Your task to perform on an android device: delete location history Image 0: 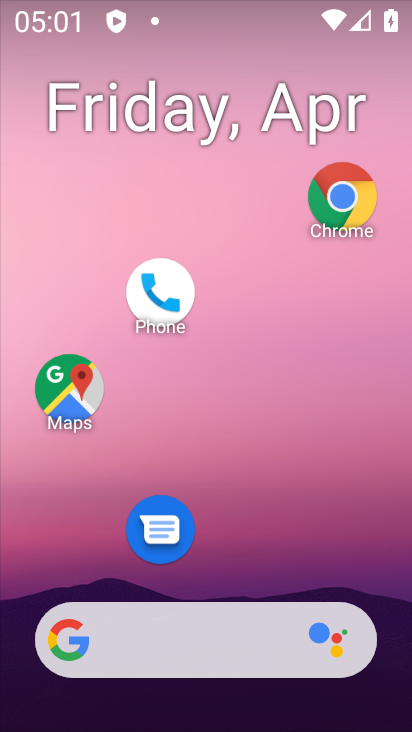
Step 0: drag from (238, 570) to (263, 63)
Your task to perform on an android device: delete location history Image 1: 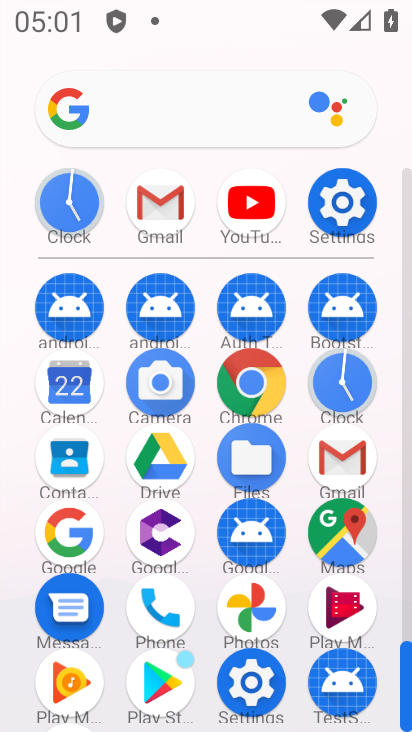
Step 1: click (339, 528)
Your task to perform on an android device: delete location history Image 2: 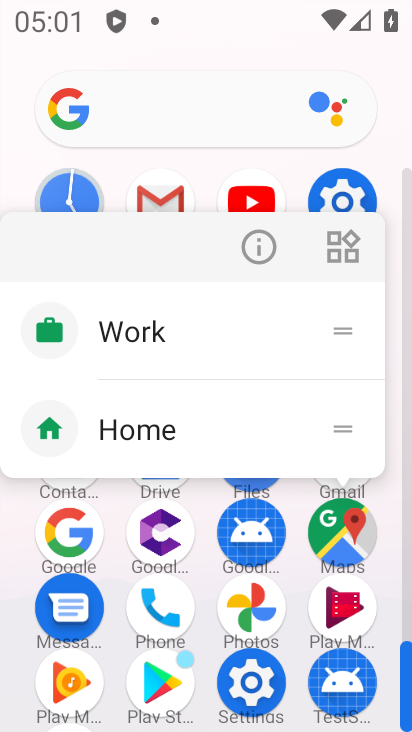
Step 2: click (335, 530)
Your task to perform on an android device: delete location history Image 3: 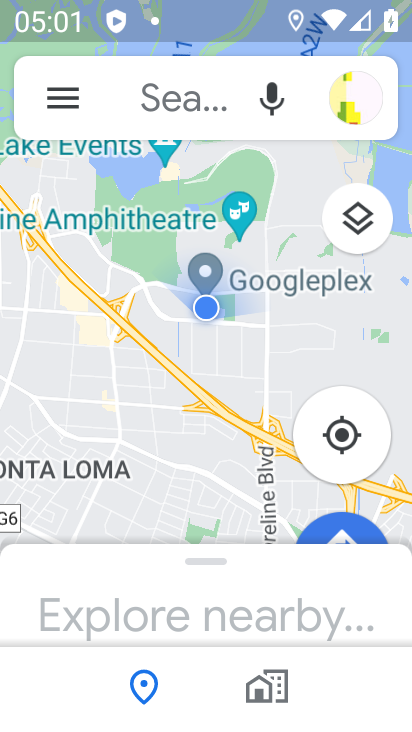
Step 3: click (51, 94)
Your task to perform on an android device: delete location history Image 4: 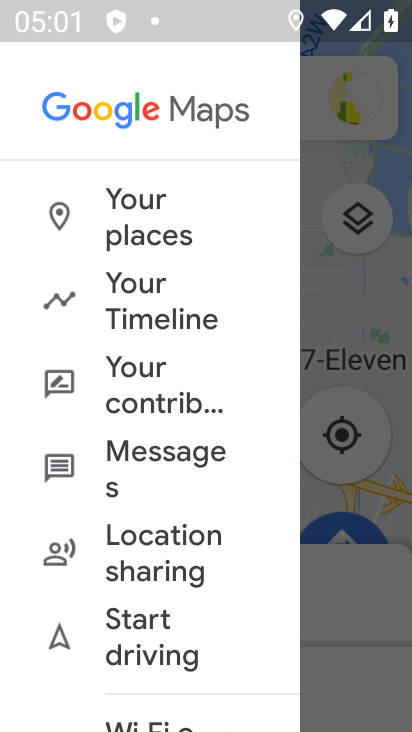
Step 4: drag from (171, 629) to (210, 106)
Your task to perform on an android device: delete location history Image 5: 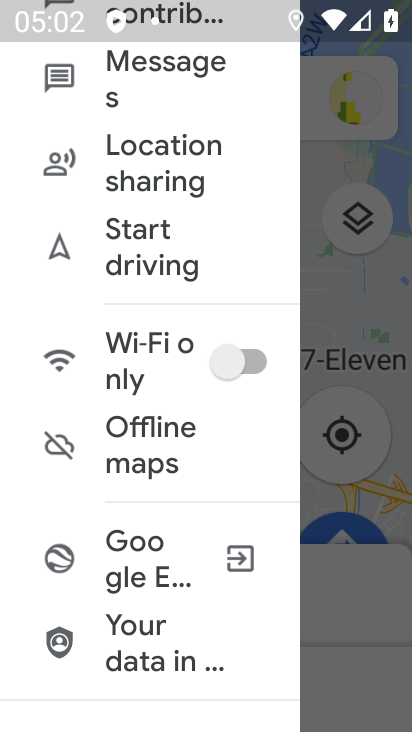
Step 5: drag from (162, 623) to (193, 133)
Your task to perform on an android device: delete location history Image 6: 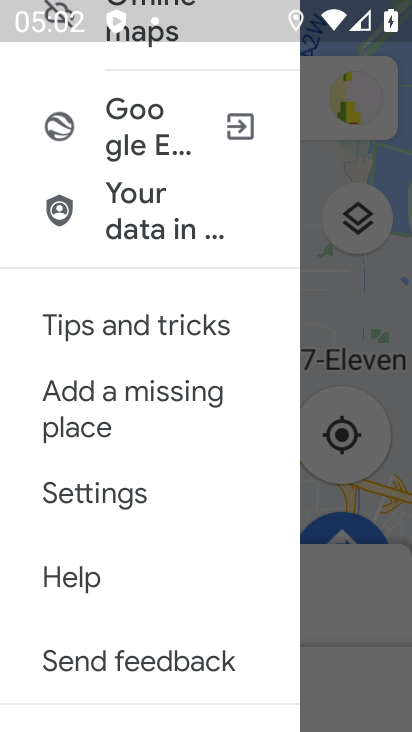
Step 6: drag from (168, 89) to (167, 694)
Your task to perform on an android device: delete location history Image 7: 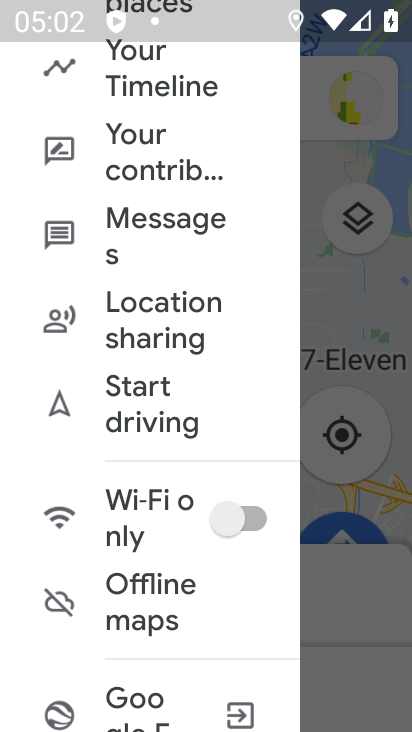
Step 7: drag from (136, 141) to (171, 698)
Your task to perform on an android device: delete location history Image 8: 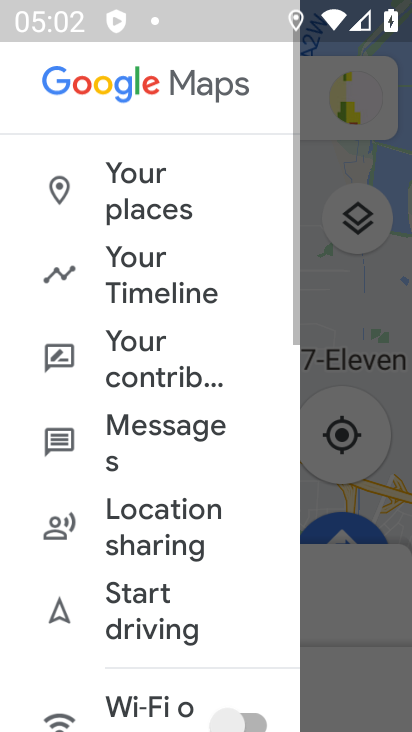
Step 8: click (176, 297)
Your task to perform on an android device: delete location history Image 9: 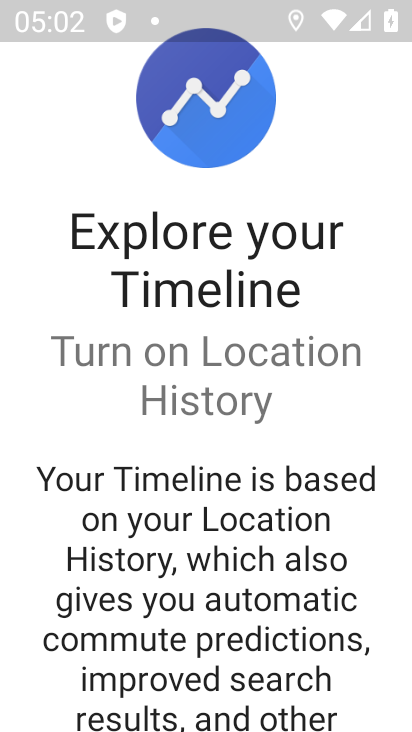
Step 9: drag from (226, 666) to (247, 235)
Your task to perform on an android device: delete location history Image 10: 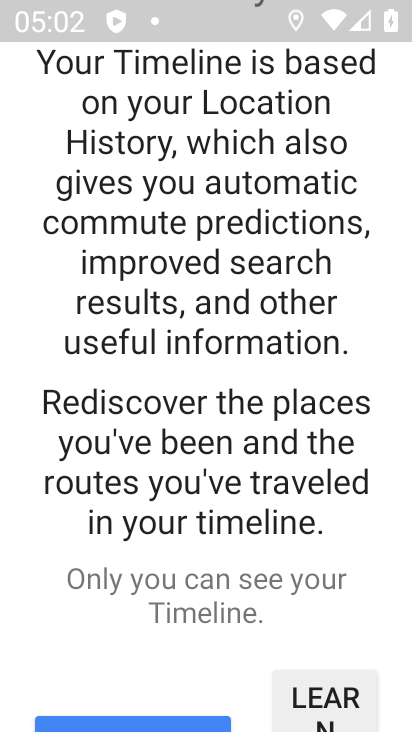
Step 10: drag from (226, 672) to (251, 212)
Your task to perform on an android device: delete location history Image 11: 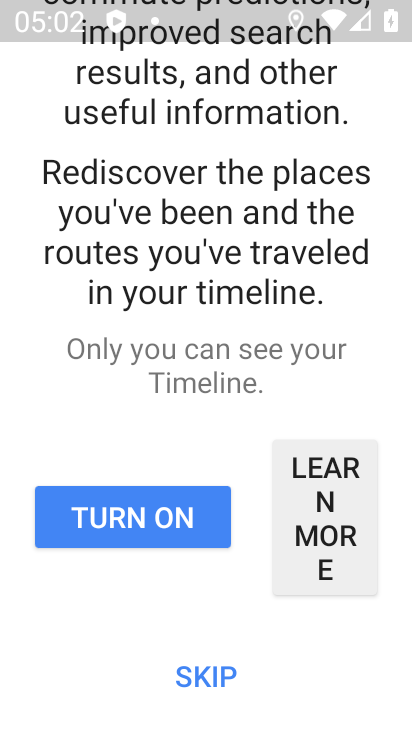
Step 11: click (152, 519)
Your task to perform on an android device: delete location history Image 12: 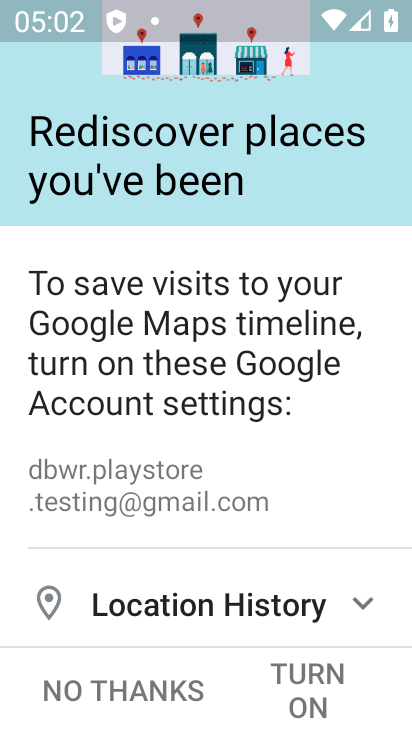
Step 12: click (161, 693)
Your task to perform on an android device: delete location history Image 13: 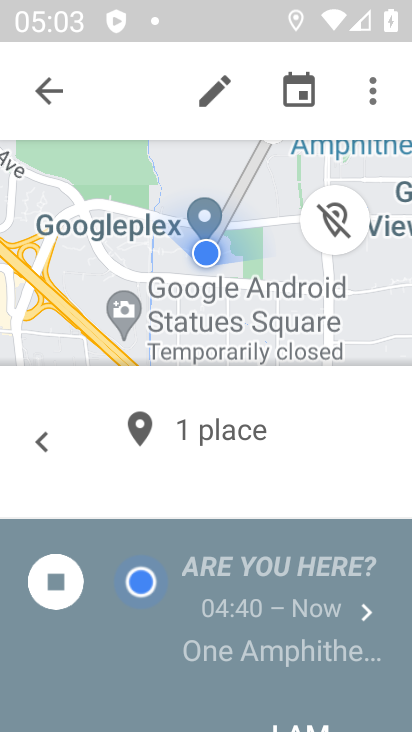
Step 13: click (375, 88)
Your task to perform on an android device: delete location history Image 14: 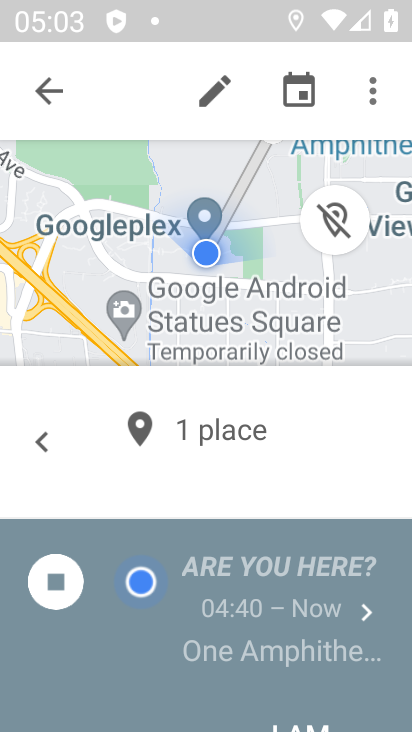
Step 14: click (370, 91)
Your task to perform on an android device: delete location history Image 15: 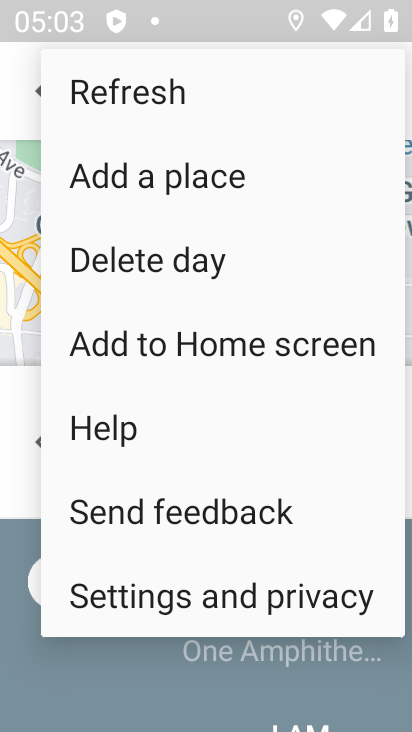
Step 15: click (256, 598)
Your task to perform on an android device: delete location history Image 16: 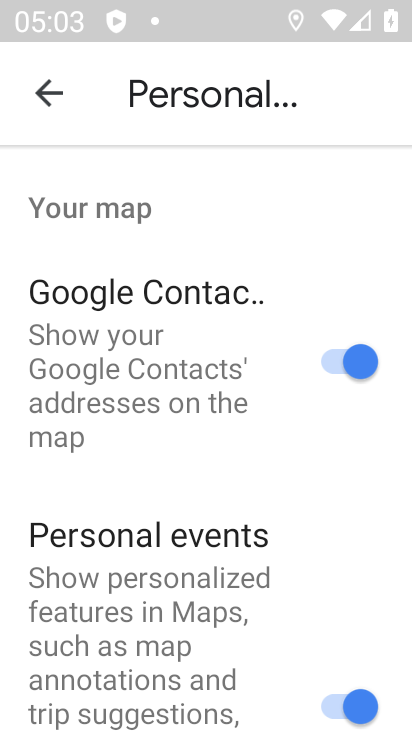
Step 16: drag from (142, 601) to (194, 229)
Your task to perform on an android device: delete location history Image 17: 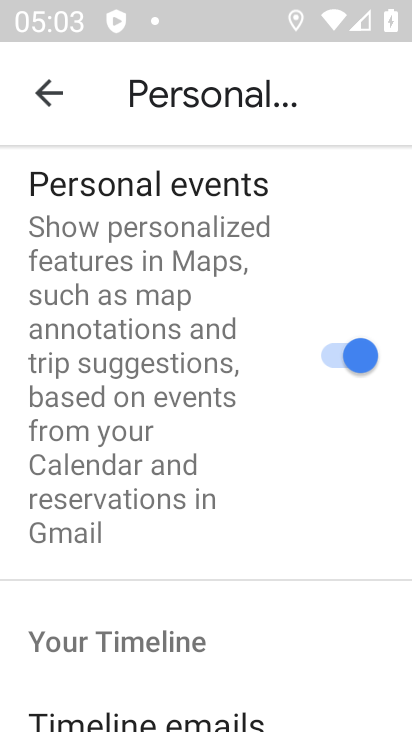
Step 17: drag from (182, 675) to (237, 161)
Your task to perform on an android device: delete location history Image 18: 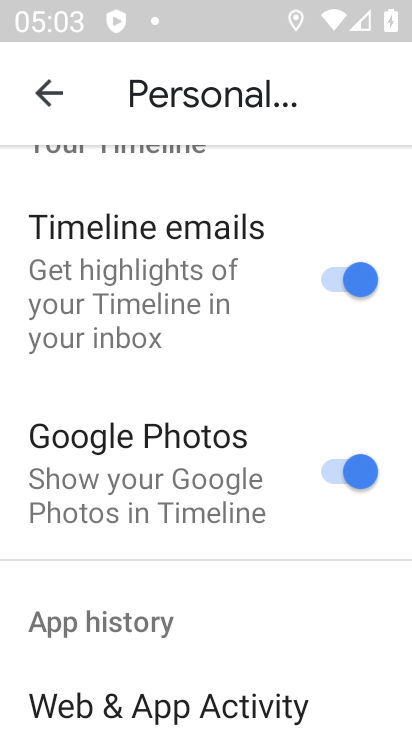
Step 18: drag from (202, 636) to (242, 122)
Your task to perform on an android device: delete location history Image 19: 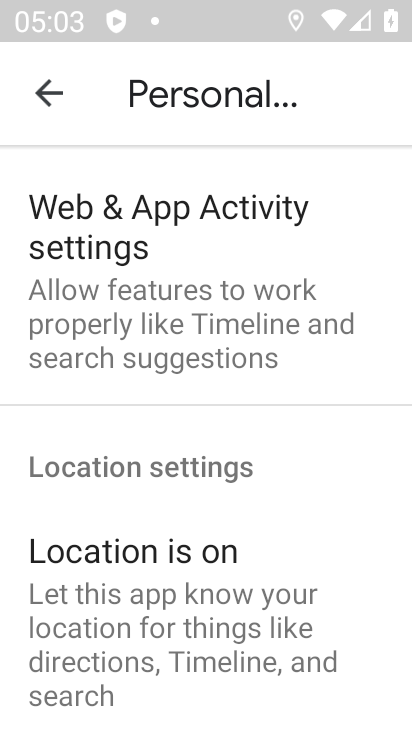
Step 19: drag from (180, 675) to (213, 160)
Your task to perform on an android device: delete location history Image 20: 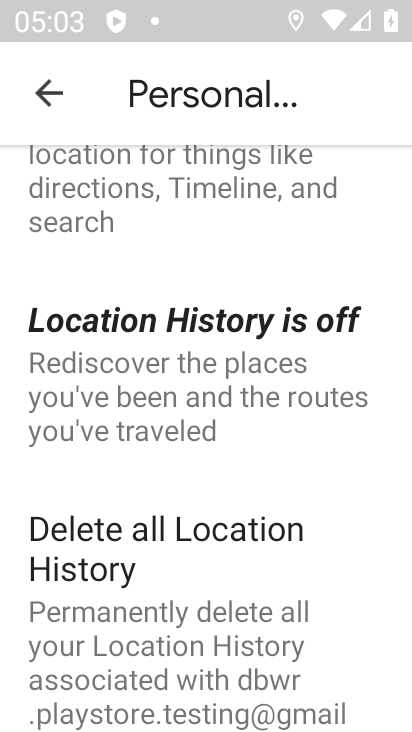
Step 20: click (187, 587)
Your task to perform on an android device: delete location history Image 21: 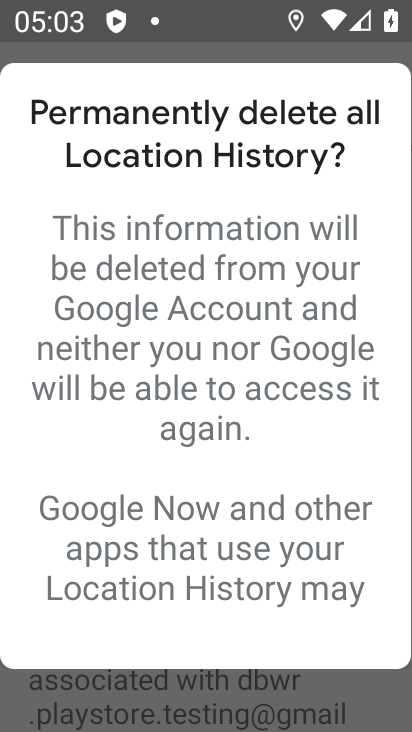
Step 21: task complete